Your task to perform on an android device: Open Amazon Image 0: 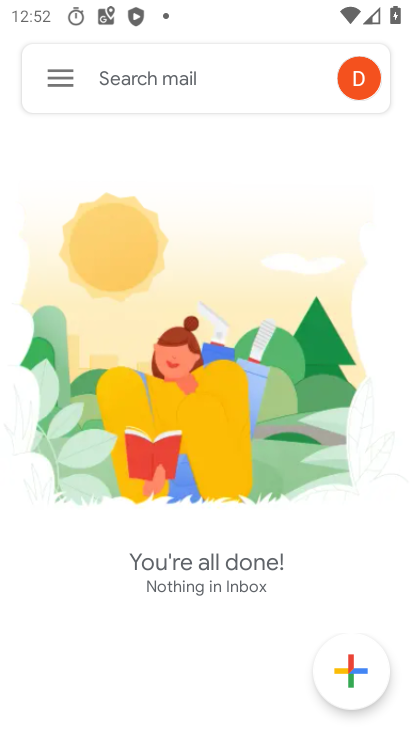
Step 0: press home button
Your task to perform on an android device: Open Amazon Image 1: 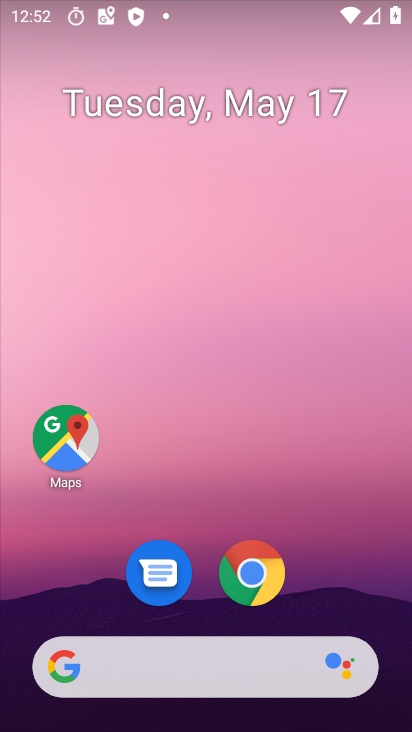
Step 1: click (127, 670)
Your task to perform on an android device: Open Amazon Image 2: 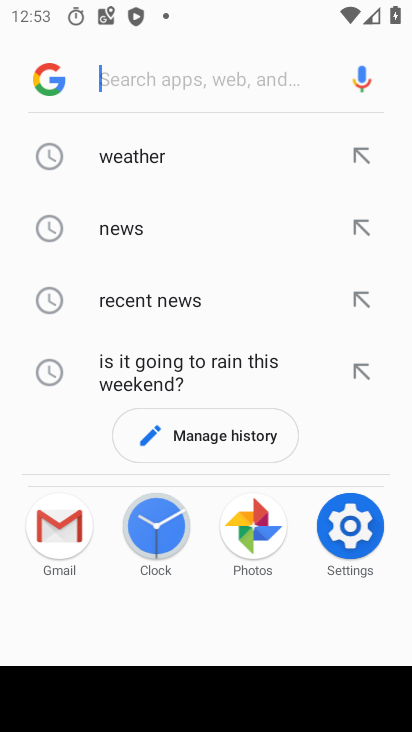
Step 2: type "amazon "
Your task to perform on an android device: Open Amazon Image 3: 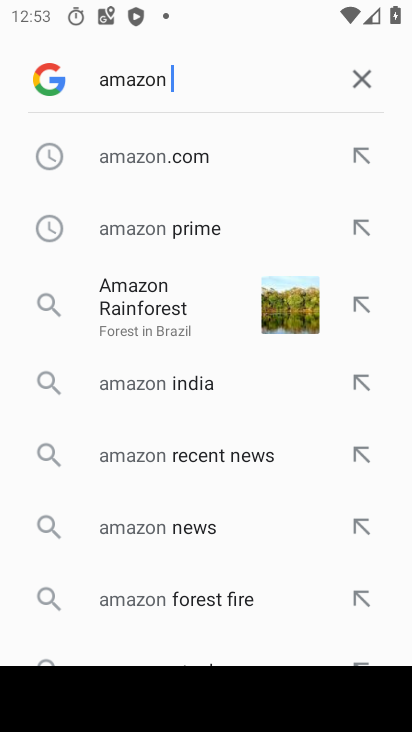
Step 3: click (259, 154)
Your task to perform on an android device: Open Amazon Image 4: 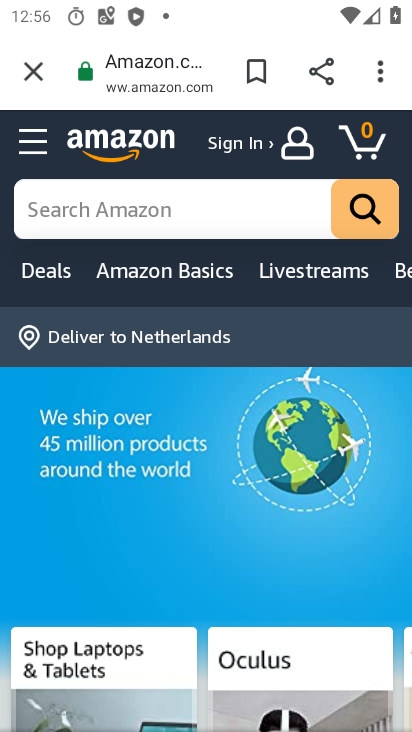
Step 4: task complete